Your task to perform on an android device: Open the Play Movies app and select the watchlist tab. Image 0: 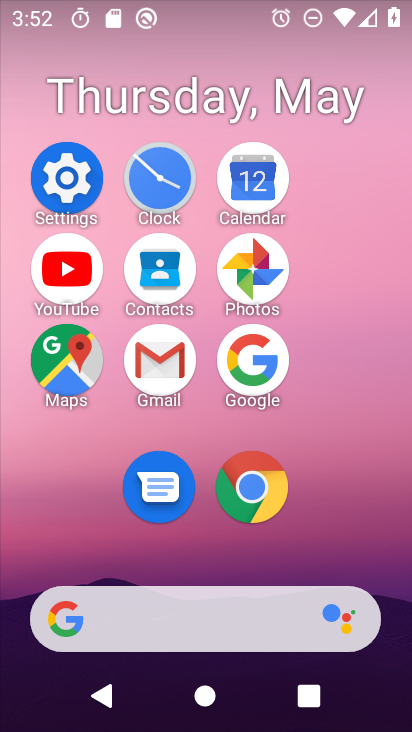
Step 0: drag from (277, 559) to (274, 173)
Your task to perform on an android device: Open the Play Movies app and select the watchlist tab. Image 1: 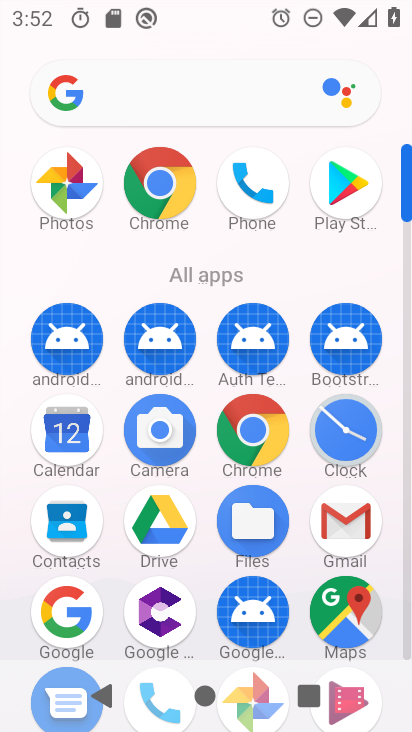
Step 1: drag from (289, 573) to (280, 240)
Your task to perform on an android device: Open the Play Movies app and select the watchlist tab. Image 2: 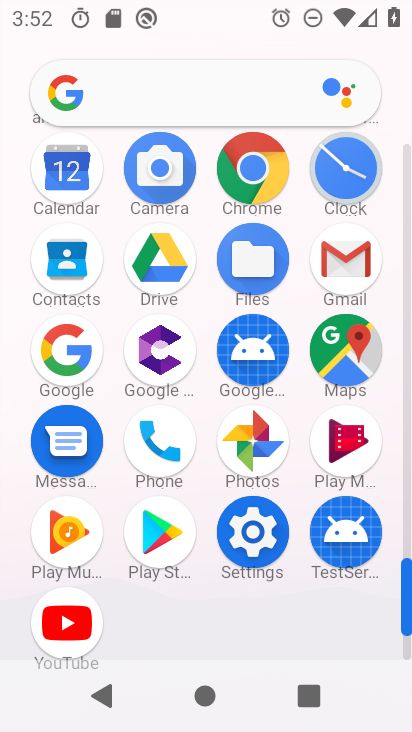
Step 2: click (333, 451)
Your task to perform on an android device: Open the Play Movies app and select the watchlist tab. Image 3: 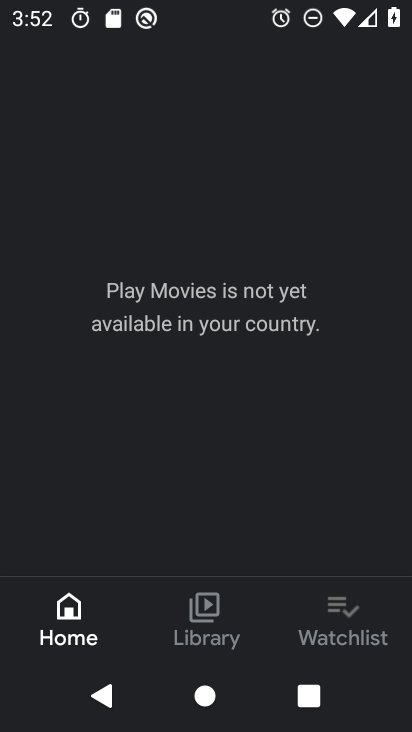
Step 3: click (321, 598)
Your task to perform on an android device: Open the Play Movies app and select the watchlist tab. Image 4: 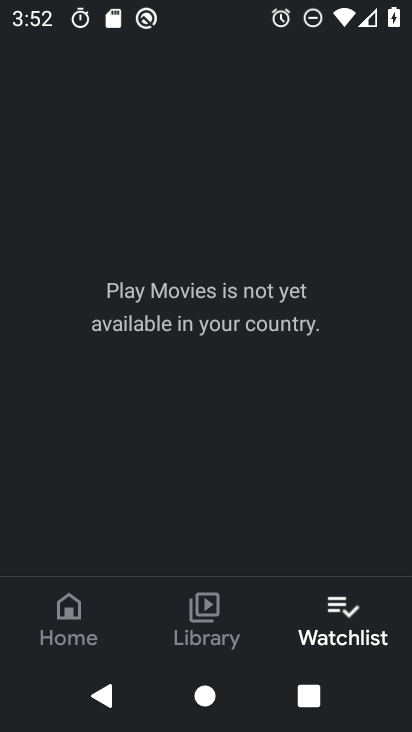
Step 4: task complete